Your task to perform on an android device: clear all cookies in the chrome app Image 0: 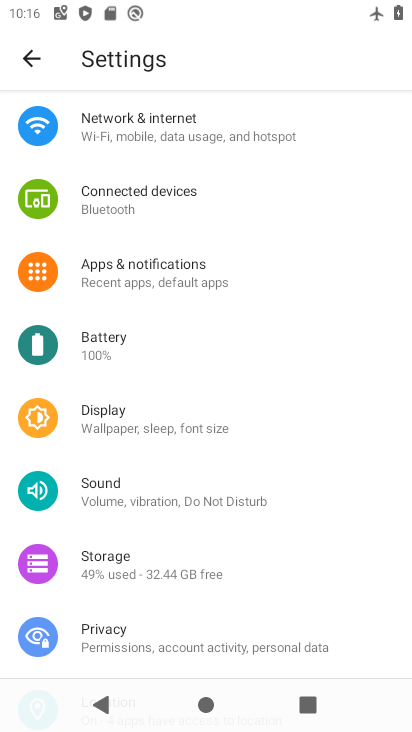
Step 0: press back button
Your task to perform on an android device: clear all cookies in the chrome app Image 1: 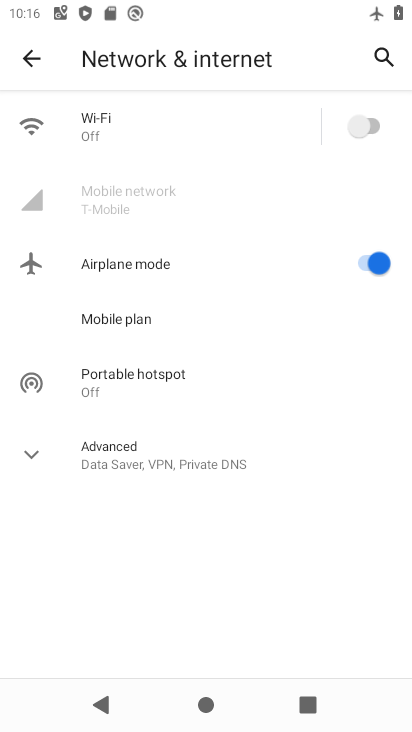
Step 1: press back button
Your task to perform on an android device: clear all cookies in the chrome app Image 2: 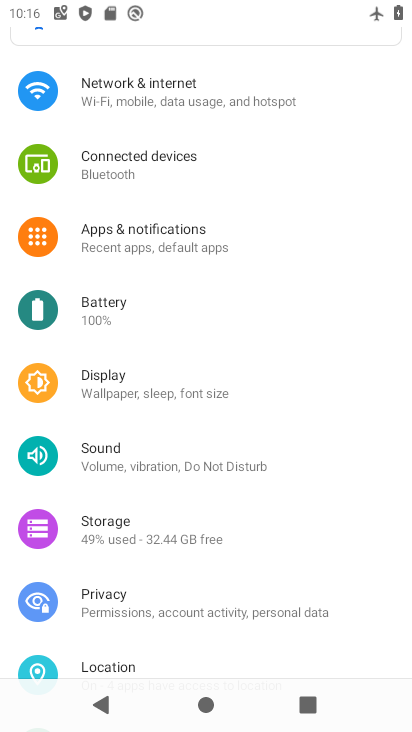
Step 2: press back button
Your task to perform on an android device: clear all cookies in the chrome app Image 3: 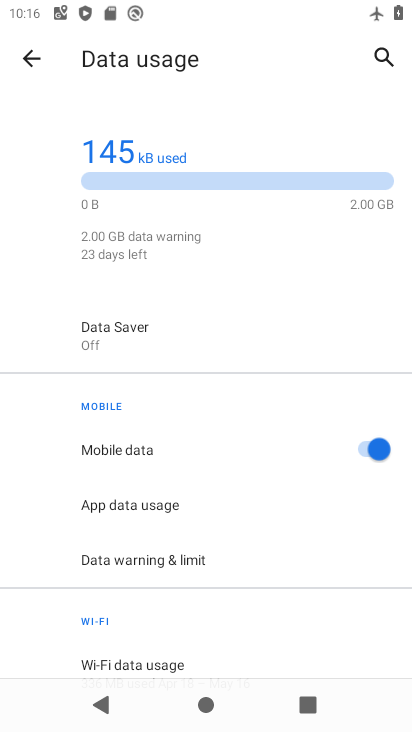
Step 3: press back button
Your task to perform on an android device: clear all cookies in the chrome app Image 4: 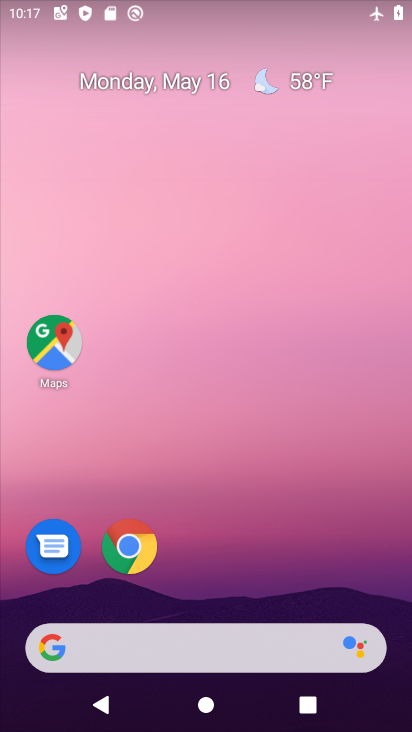
Step 4: click (129, 543)
Your task to perform on an android device: clear all cookies in the chrome app Image 5: 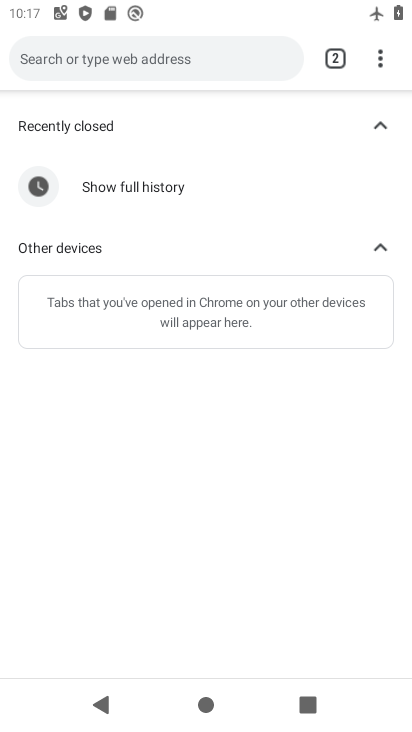
Step 5: click (376, 61)
Your task to perform on an android device: clear all cookies in the chrome app Image 6: 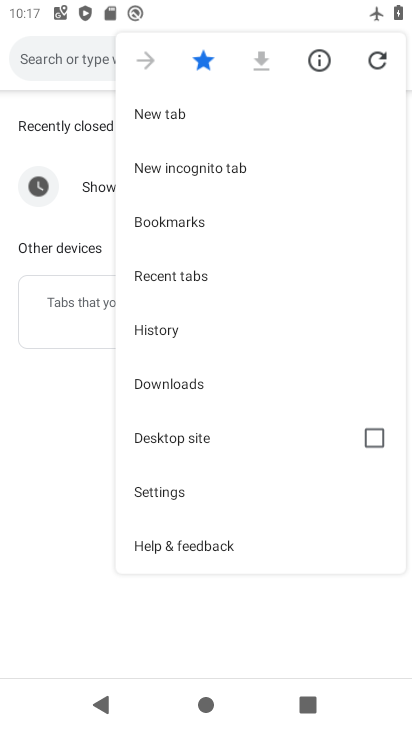
Step 6: click (161, 488)
Your task to perform on an android device: clear all cookies in the chrome app Image 7: 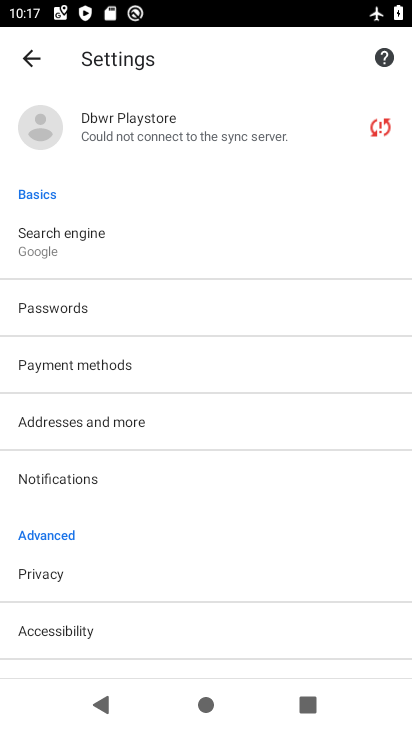
Step 7: drag from (98, 557) to (152, 462)
Your task to perform on an android device: clear all cookies in the chrome app Image 8: 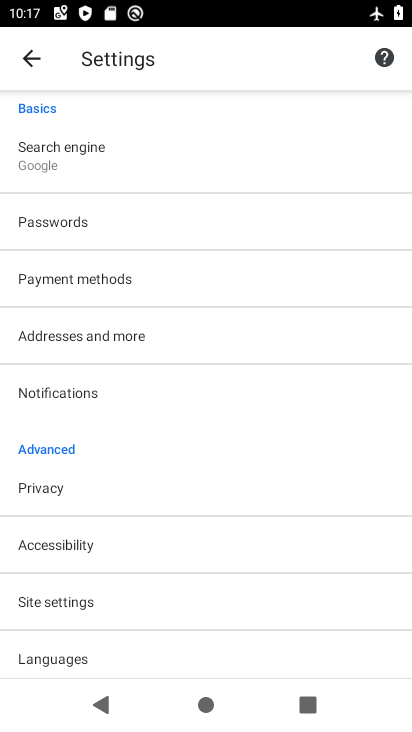
Step 8: drag from (115, 559) to (186, 469)
Your task to perform on an android device: clear all cookies in the chrome app Image 9: 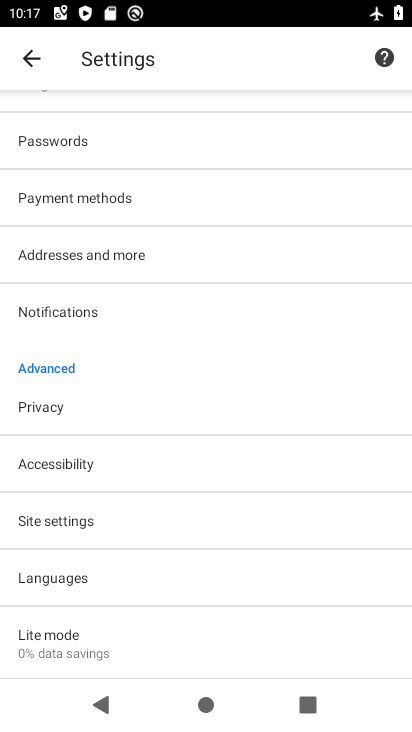
Step 9: click (41, 410)
Your task to perform on an android device: clear all cookies in the chrome app Image 10: 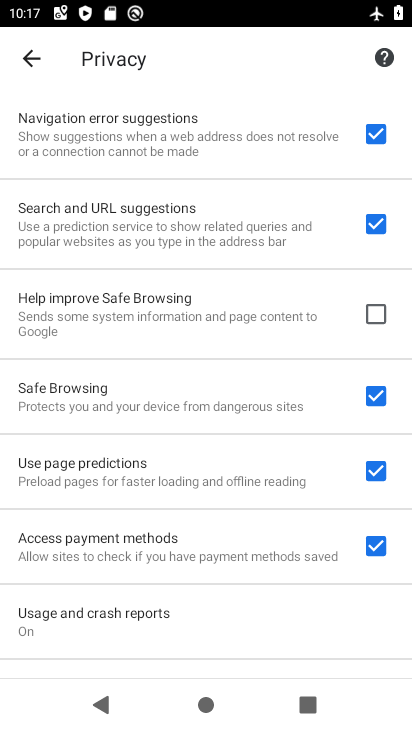
Step 10: drag from (96, 573) to (145, 482)
Your task to perform on an android device: clear all cookies in the chrome app Image 11: 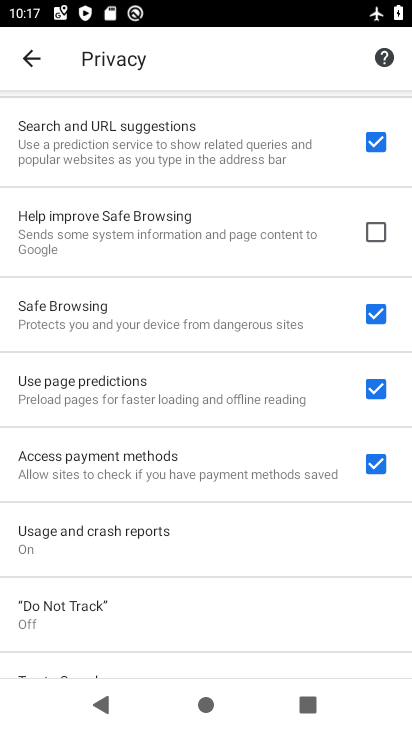
Step 11: drag from (132, 594) to (175, 482)
Your task to perform on an android device: clear all cookies in the chrome app Image 12: 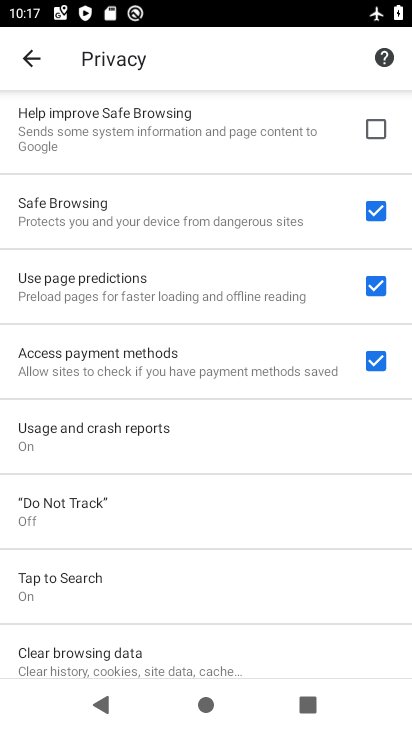
Step 12: drag from (166, 621) to (210, 524)
Your task to perform on an android device: clear all cookies in the chrome app Image 13: 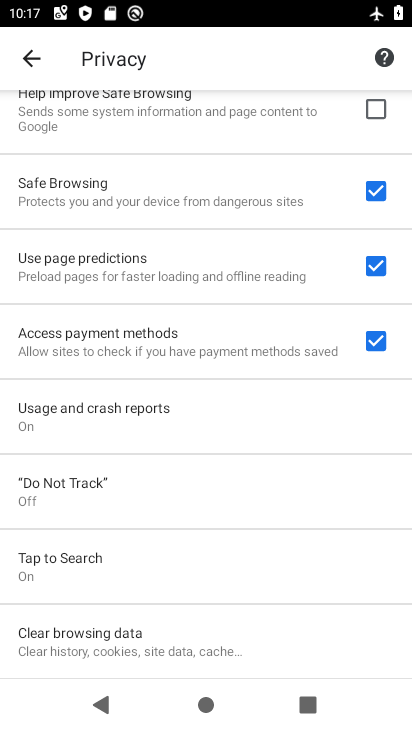
Step 13: click (105, 637)
Your task to perform on an android device: clear all cookies in the chrome app Image 14: 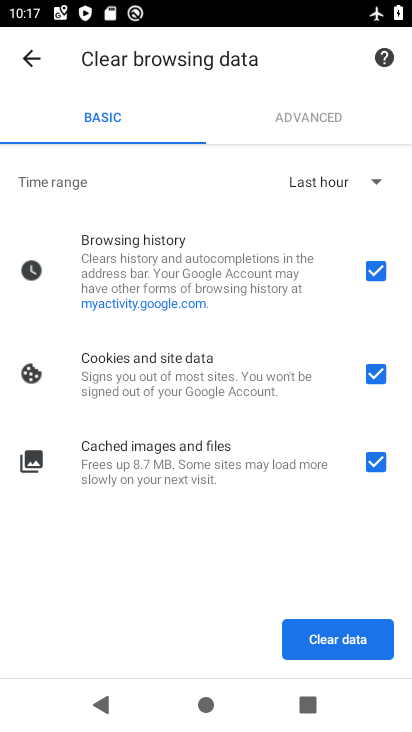
Step 14: click (329, 629)
Your task to perform on an android device: clear all cookies in the chrome app Image 15: 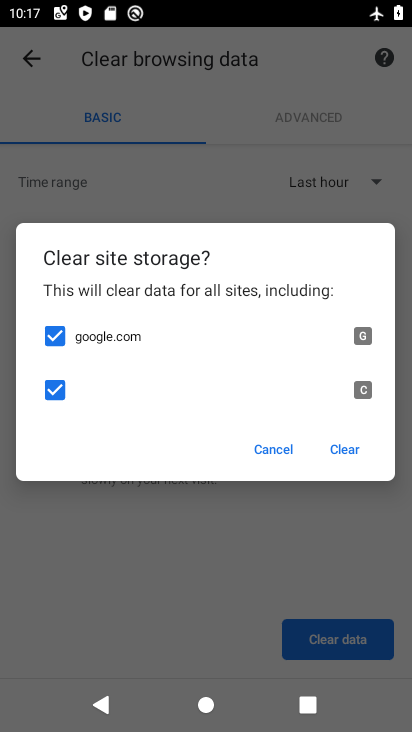
Step 15: click (339, 455)
Your task to perform on an android device: clear all cookies in the chrome app Image 16: 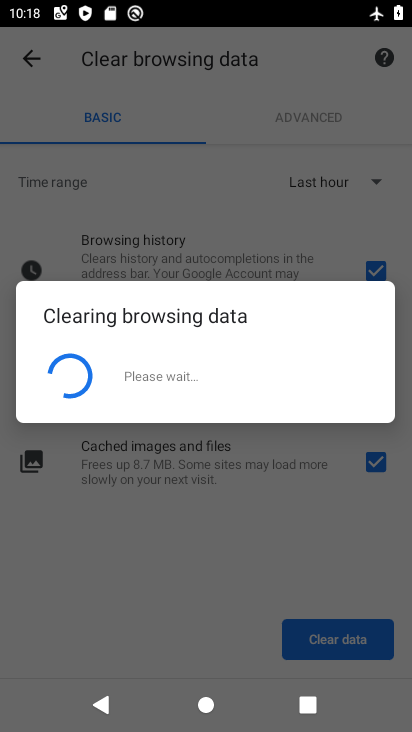
Step 16: task complete